Your task to perform on an android device: Is it going to rain today? Image 0: 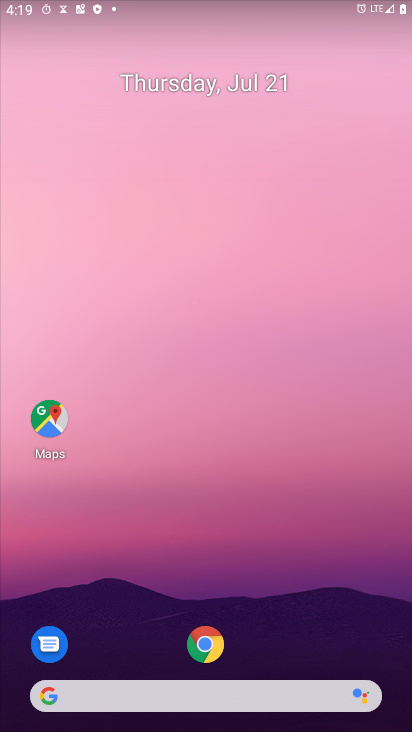
Step 0: click (47, 699)
Your task to perform on an android device: Is it going to rain today? Image 1: 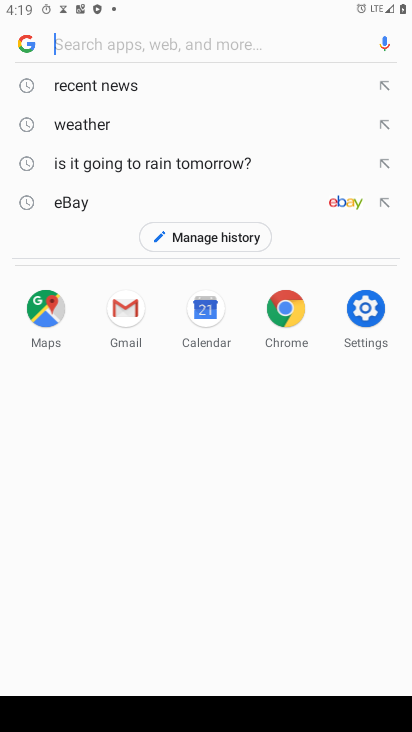
Step 1: type "rain today?"
Your task to perform on an android device: Is it going to rain today? Image 2: 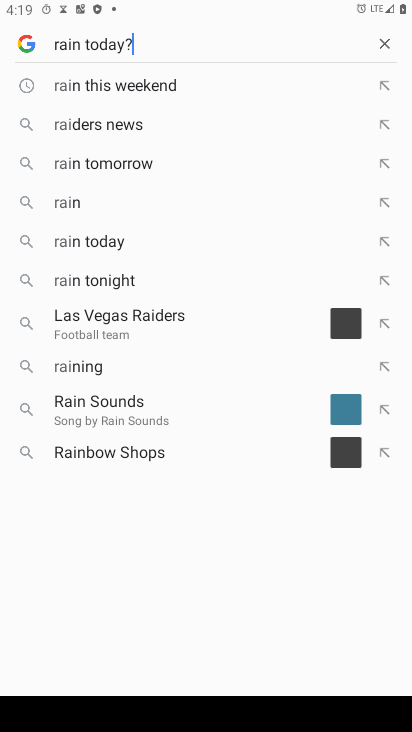
Step 2: press enter
Your task to perform on an android device: Is it going to rain today? Image 3: 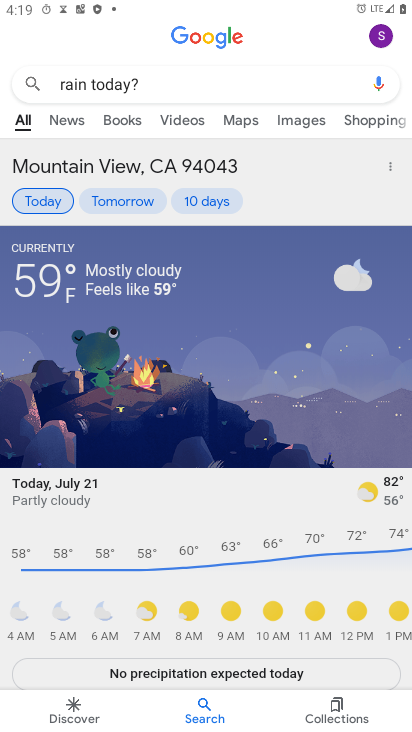
Step 3: task complete